Your task to perform on an android device: Open Google Image 0: 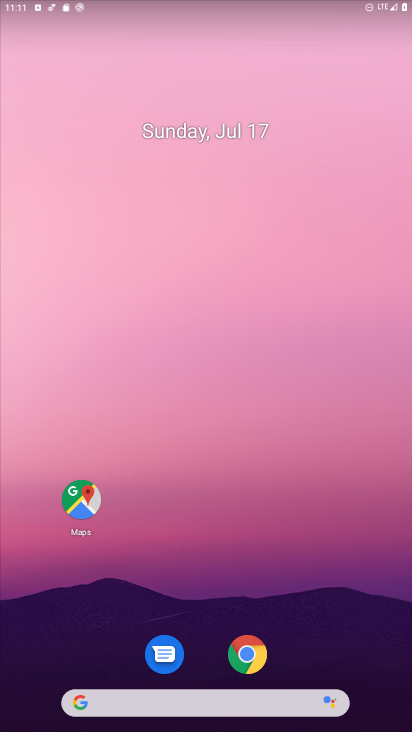
Step 0: drag from (201, 627) to (222, 91)
Your task to perform on an android device: Open Google Image 1: 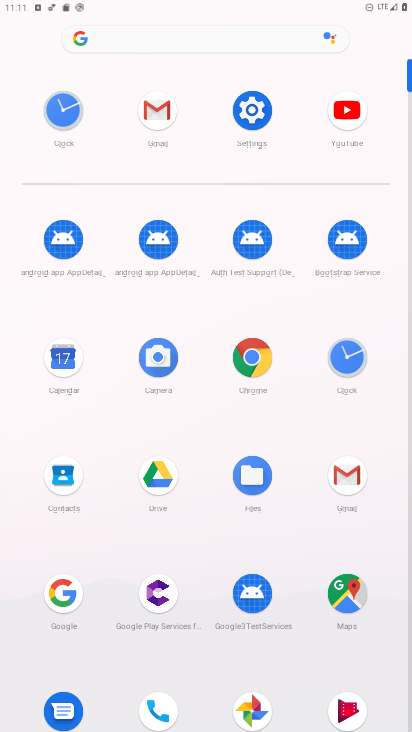
Step 1: click (70, 591)
Your task to perform on an android device: Open Google Image 2: 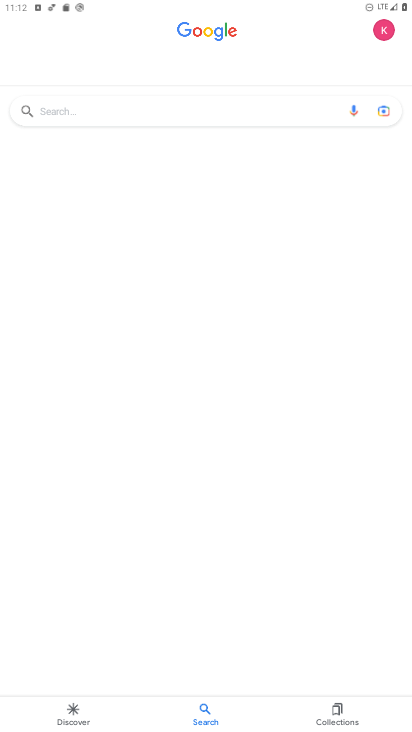
Step 2: task complete